Your task to perform on an android device: Open Amazon Image 0: 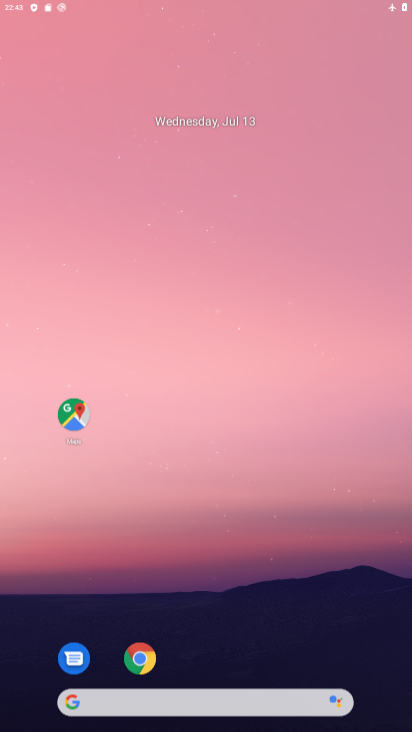
Step 0: press home button
Your task to perform on an android device: Open Amazon Image 1: 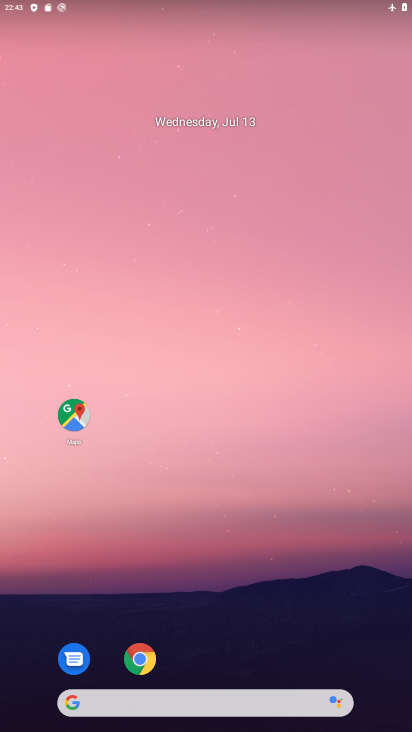
Step 1: click (141, 664)
Your task to perform on an android device: Open Amazon Image 2: 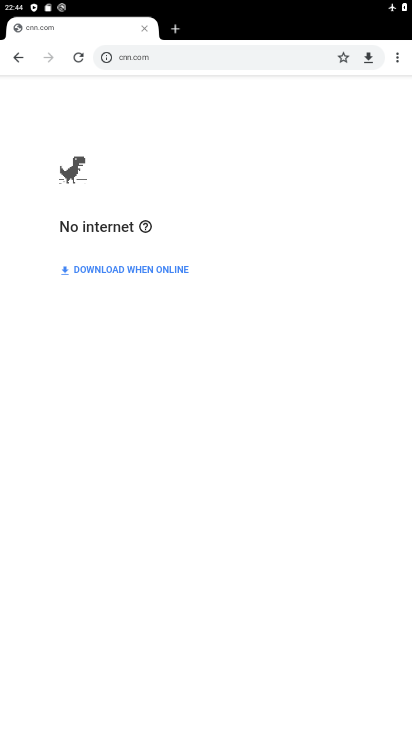
Step 2: click (198, 54)
Your task to perform on an android device: Open Amazon Image 3: 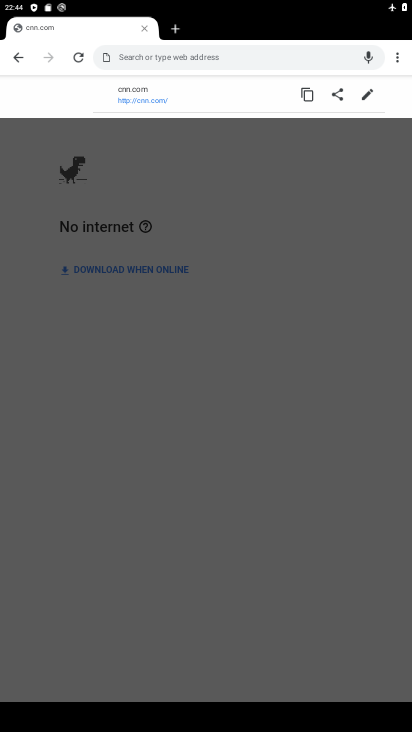
Step 3: type "amazon"
Your task to perform on an android device: Open Amazon Image 4: 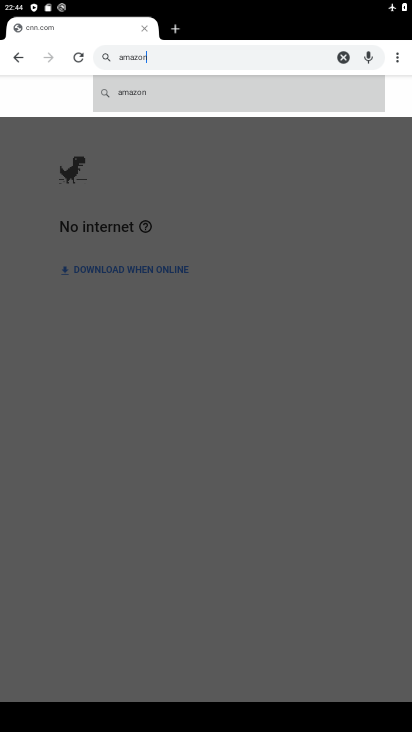
Step 4: click (190, 97)
Your task to perform on an android device: Open Amazon Image 5: 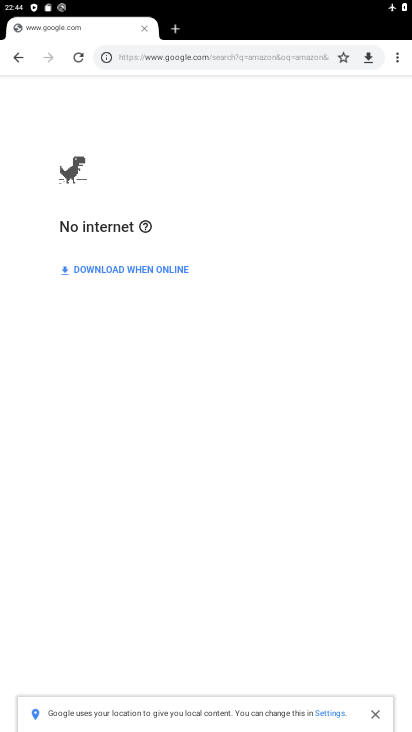
Step 5: task complete